Your task to perform on an android device: turn off javascript in the chrome app Image 0: 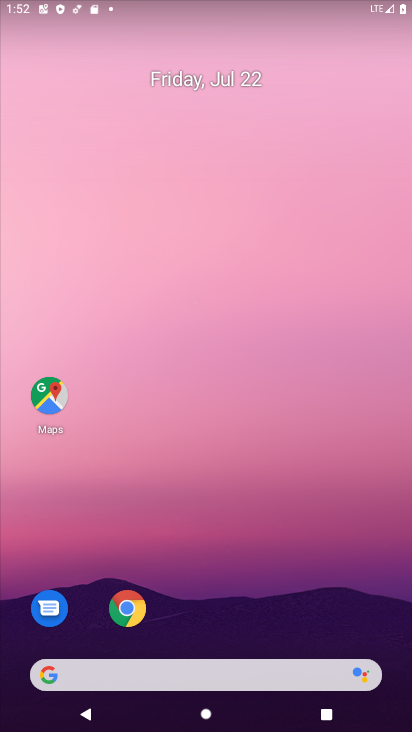
Step 0: click (122, 609)
Your task to perform on an android device: turn off javascript in the chrome app Image 1: 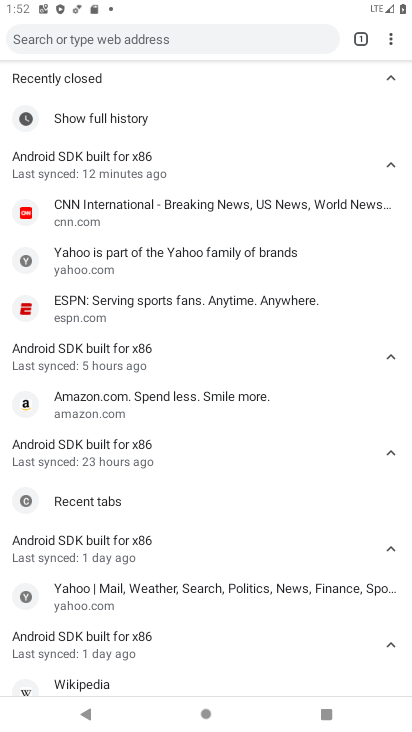
Step 1: click (388, 42)
Your task to perform on an android device: turn off javascript in the chrome app Image 2: 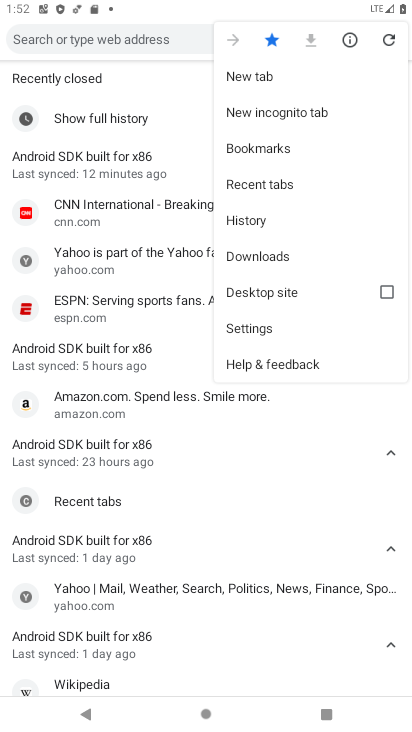
Step 2: click (241, 325)
Your task to perform on an android device: turn off javascript in the chrome app Image 3: 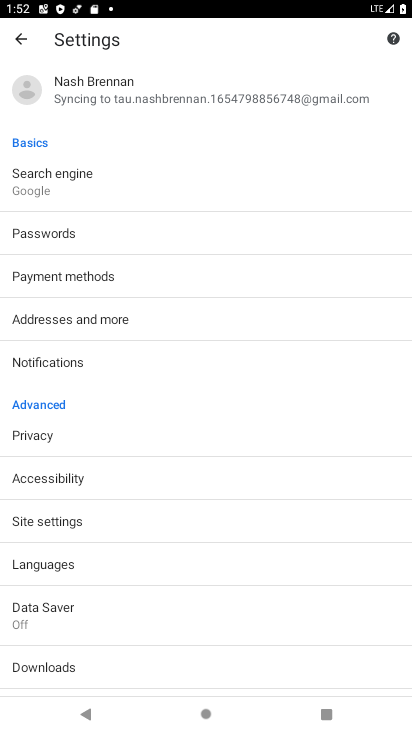
Step 3: click (39, 521)
Your task to perform on an android device: turn off javascript in the chrome app Image 4: 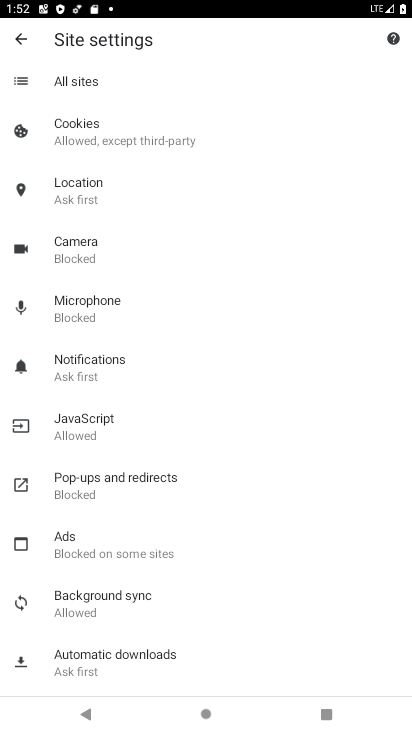
Step 4: click (71, 421)
Your task to perform on an android device: turn off javascript in the chrome app Image 5: 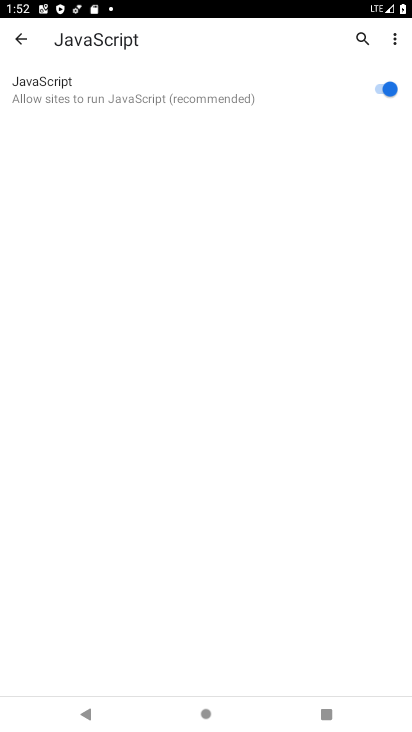
Step 5: click (386, 84)
Your task to perform on an android device: turn off javascript in the chrome app Image 6: 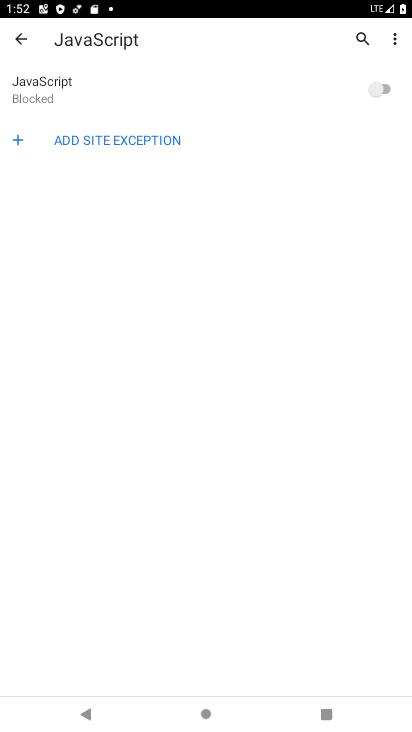
Step 6: task complete